Your task to perform on an android device: Add usb-b to the cart on costco, then select checkout. Image 0: 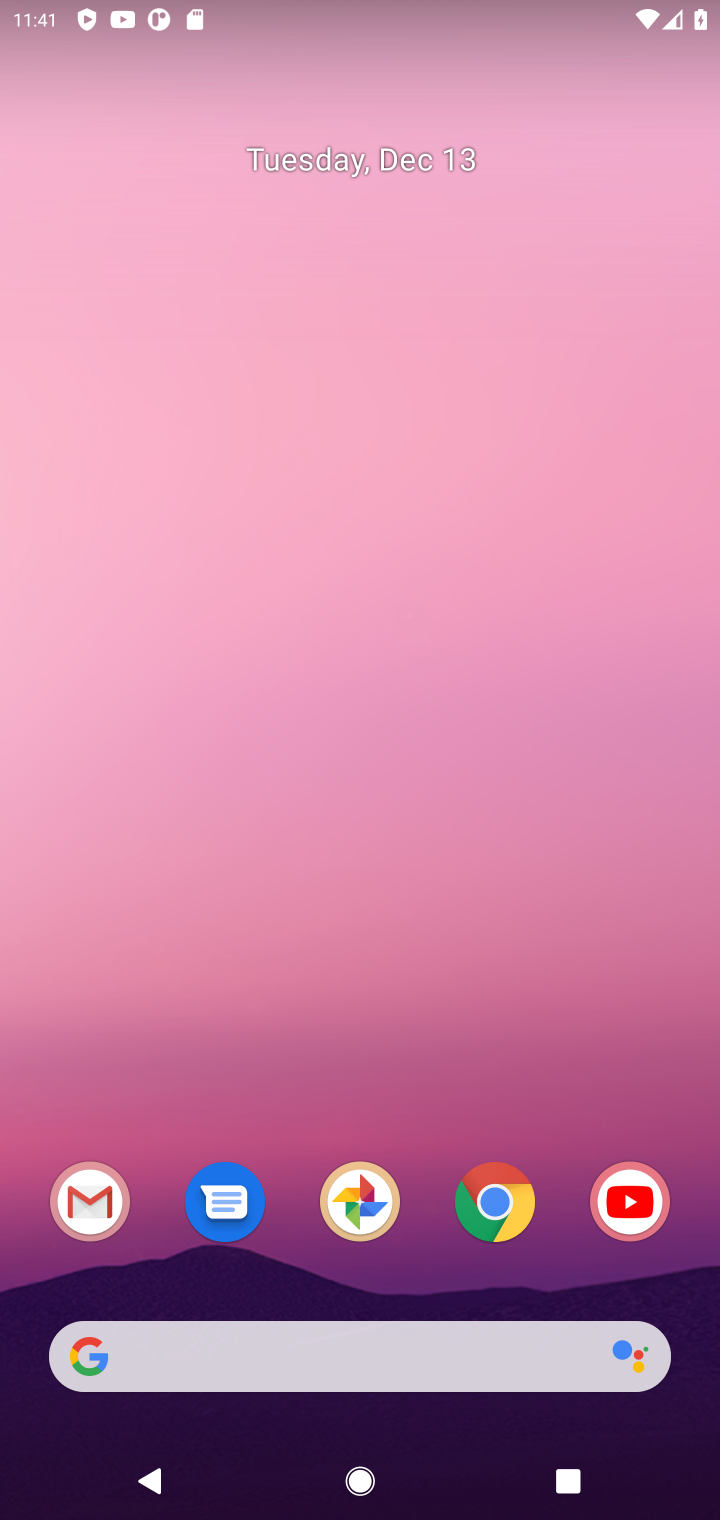
Step 0: click (487, 1200)
Your task to perform on an android device: Add usb-b to the cart on costco, then select checkout. Image 1: 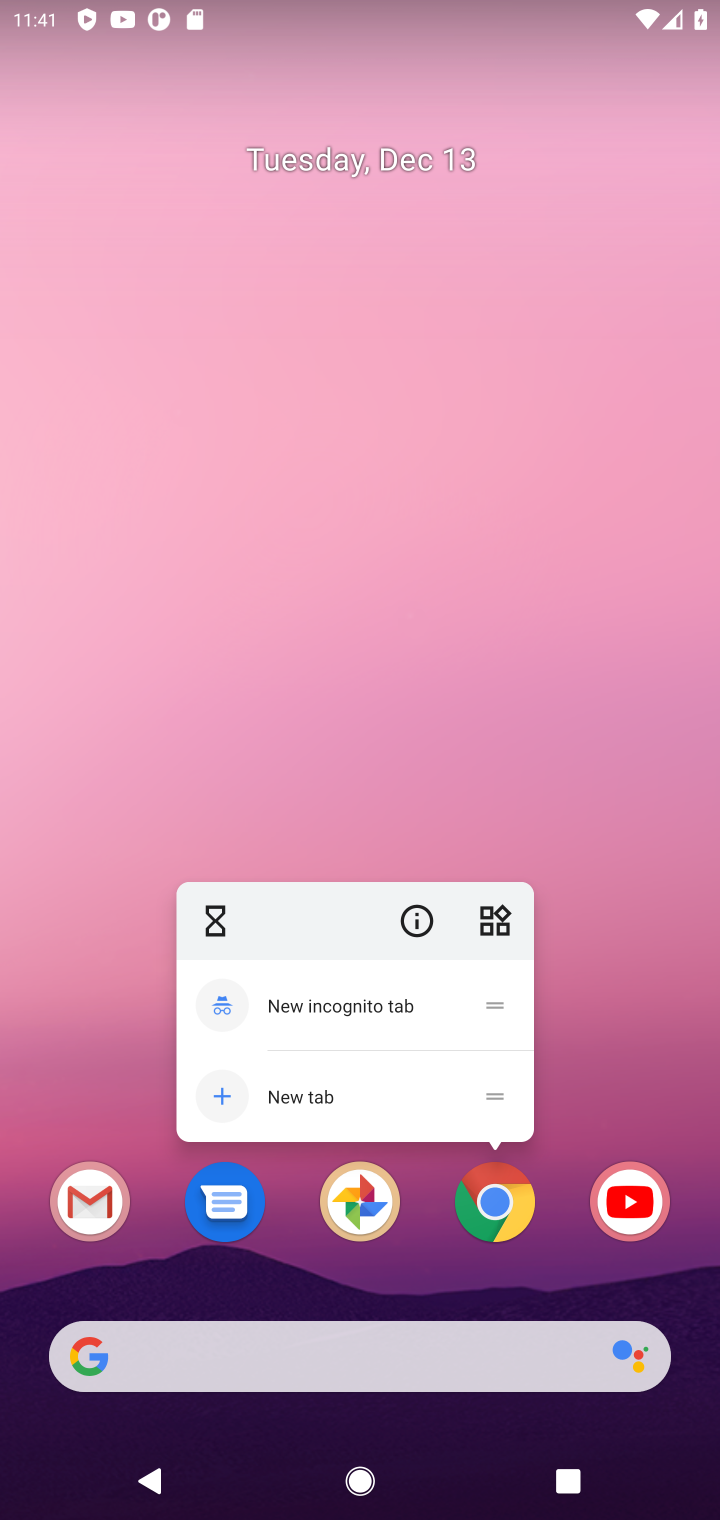
Step 1: click (487, 1200)
Your task to perform on an android device: Add usb-b to the cart on costco, then select checkout. Image 2: 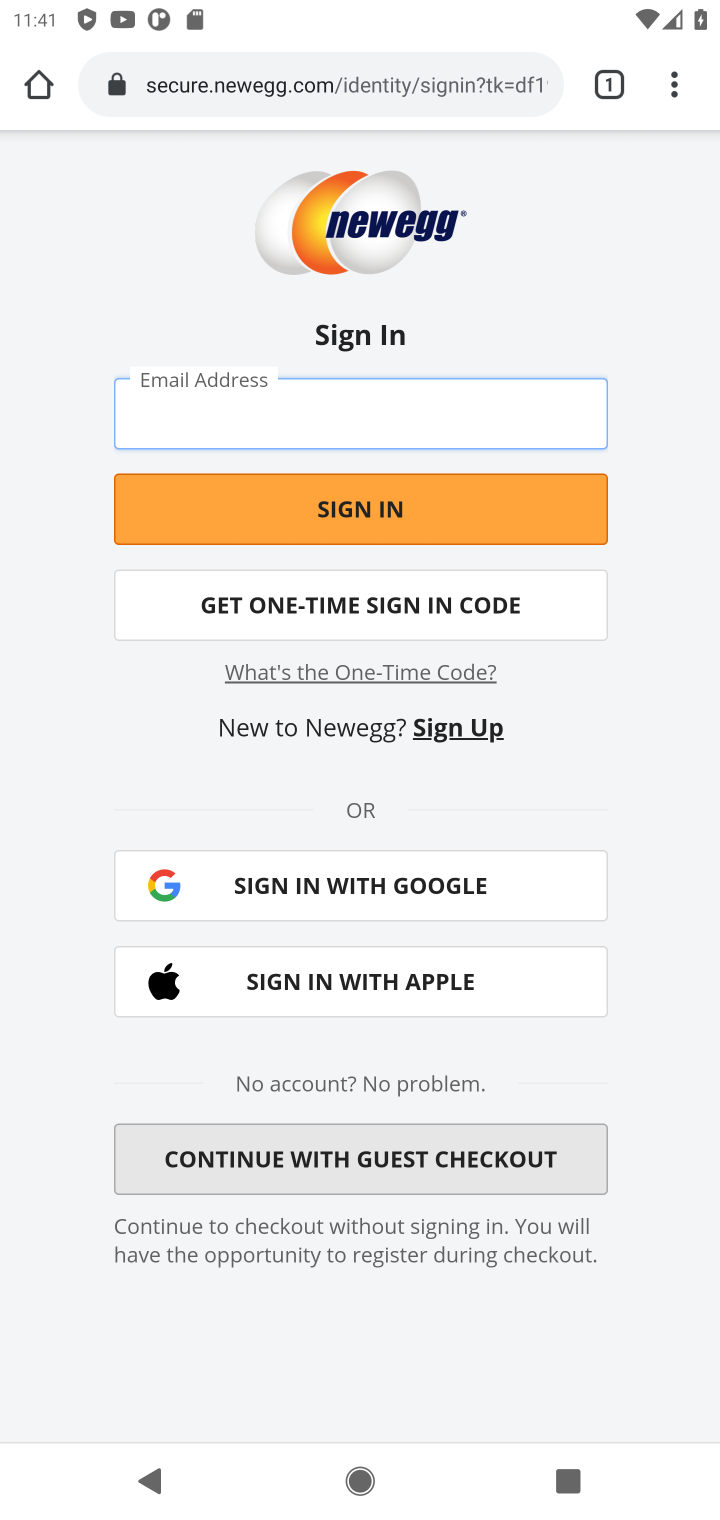
Step 2: click (319, 69)
Your task to perform on an android device: Add usb-b to the cart on costco, then select checkout. Image 3: 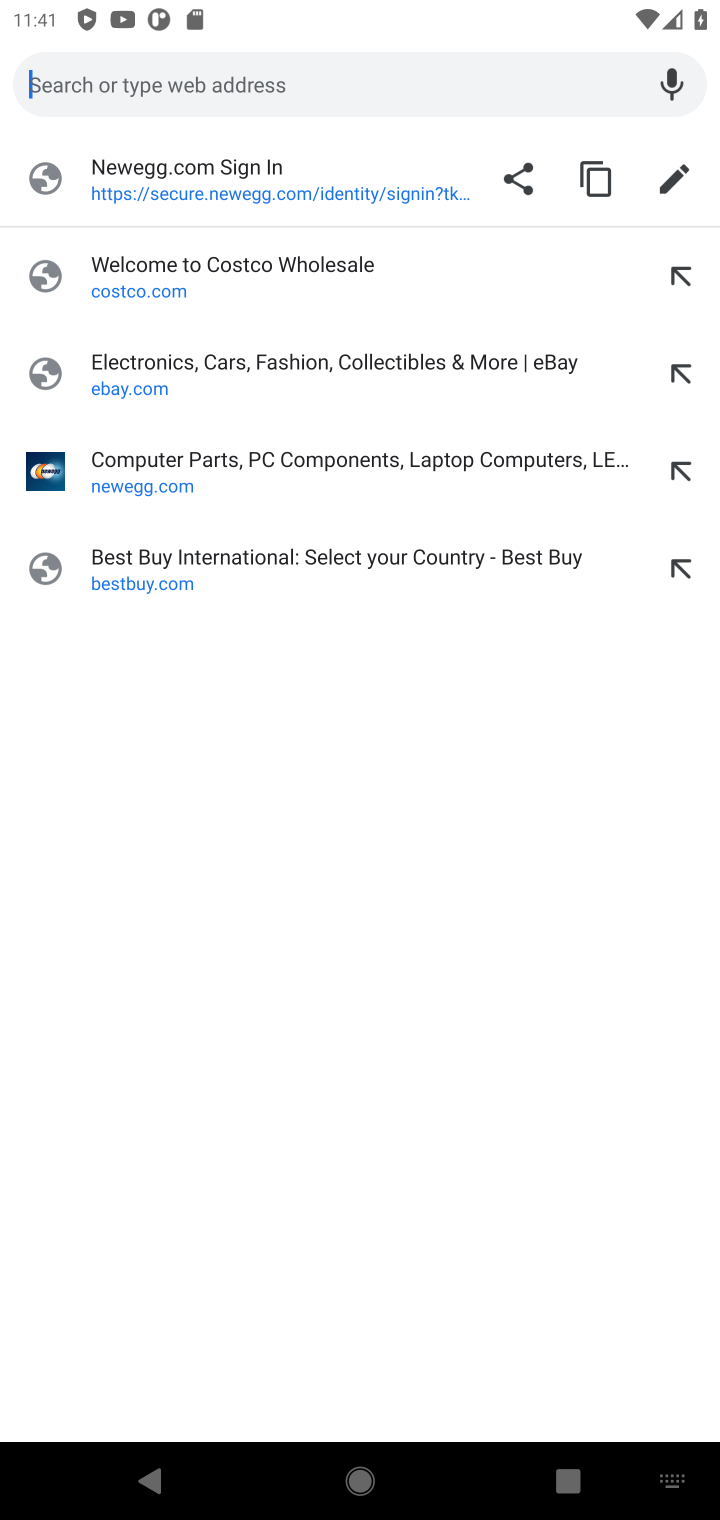
Step 3: click (203, 257)
Your task to perform on an android device: Add usb-b to the cart on costco, then select checkout. Image 4: 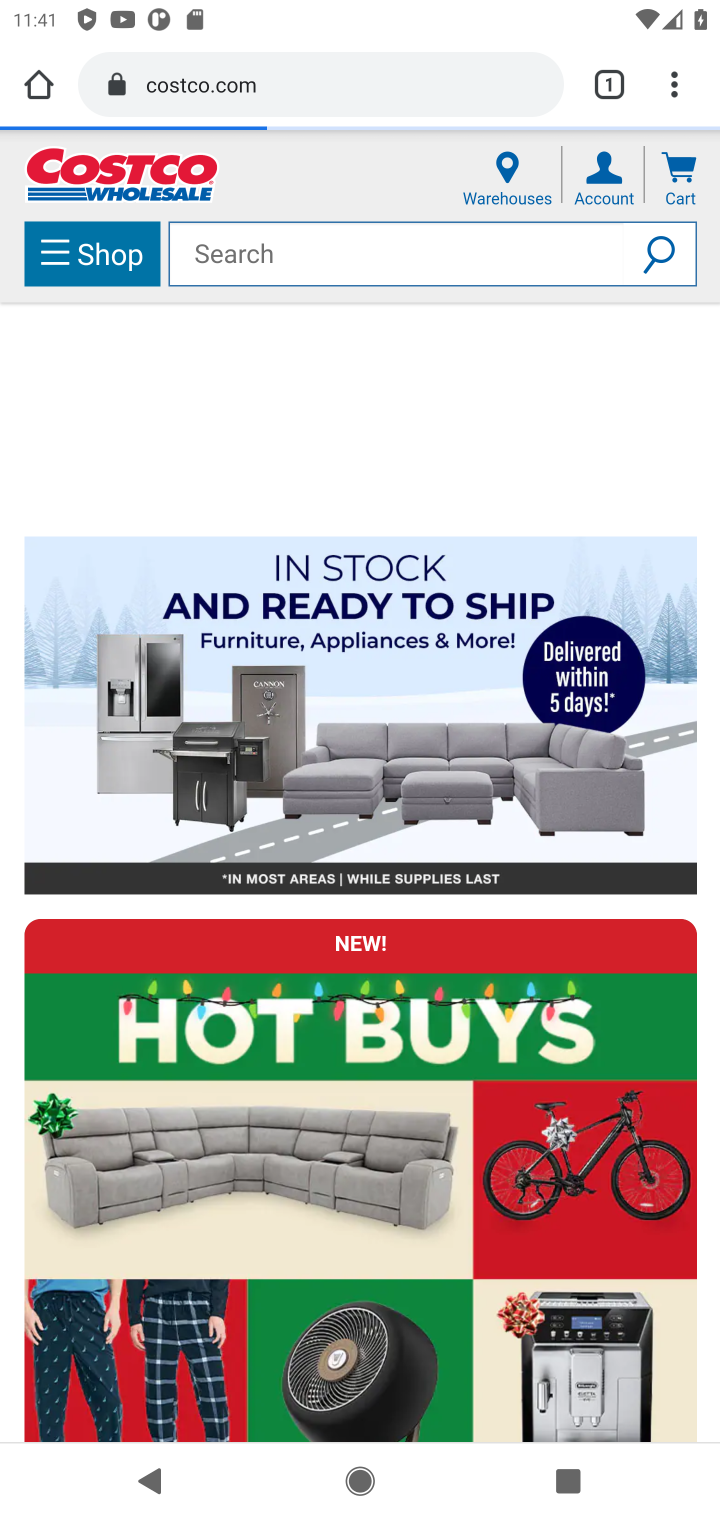
Step 4: click (467, 264)
Your task to perform on an android device: Add usb-b to the cart on costco, then select checkout. Image 5: 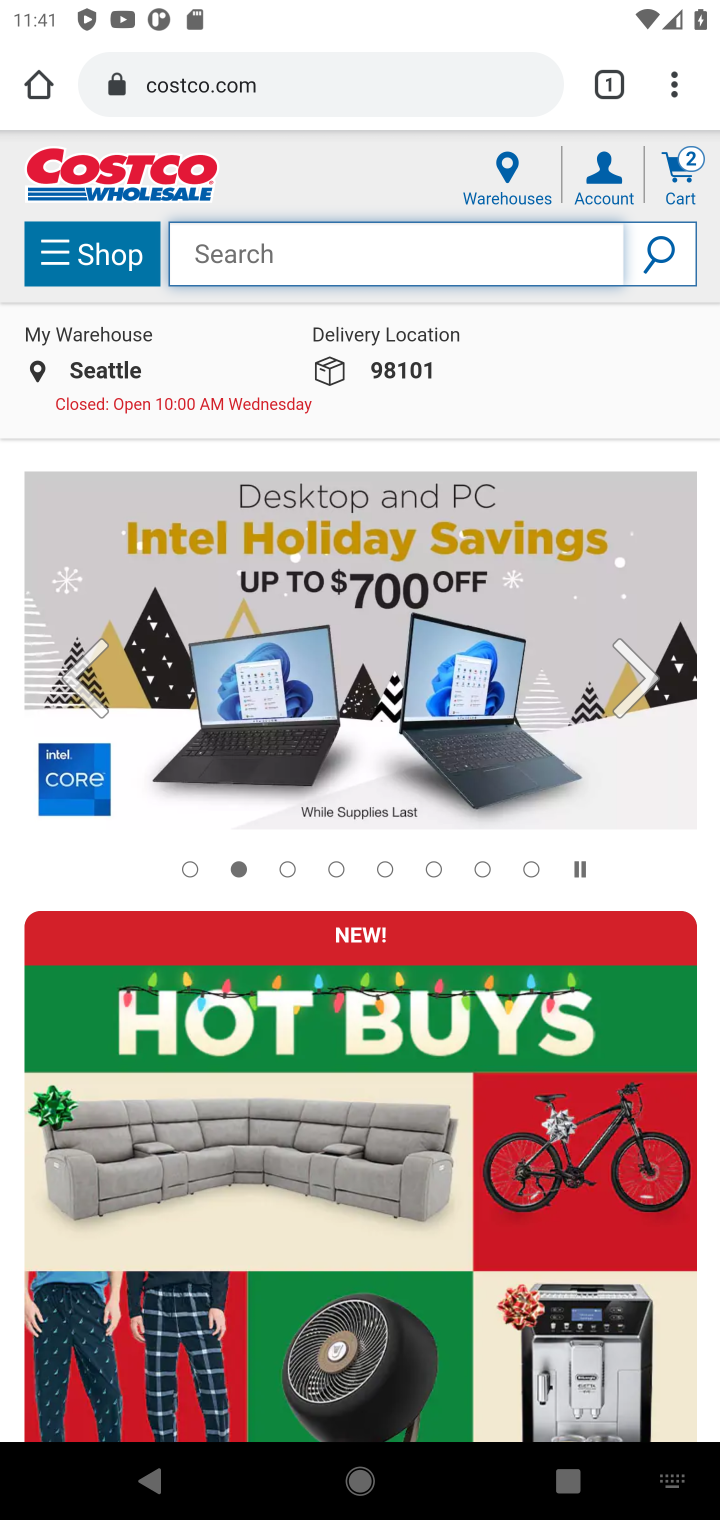
Step 5: type "usb-b"
Your task to perform on an android device: Add usb-b to the cart on costco, then select checkout. Image 6: 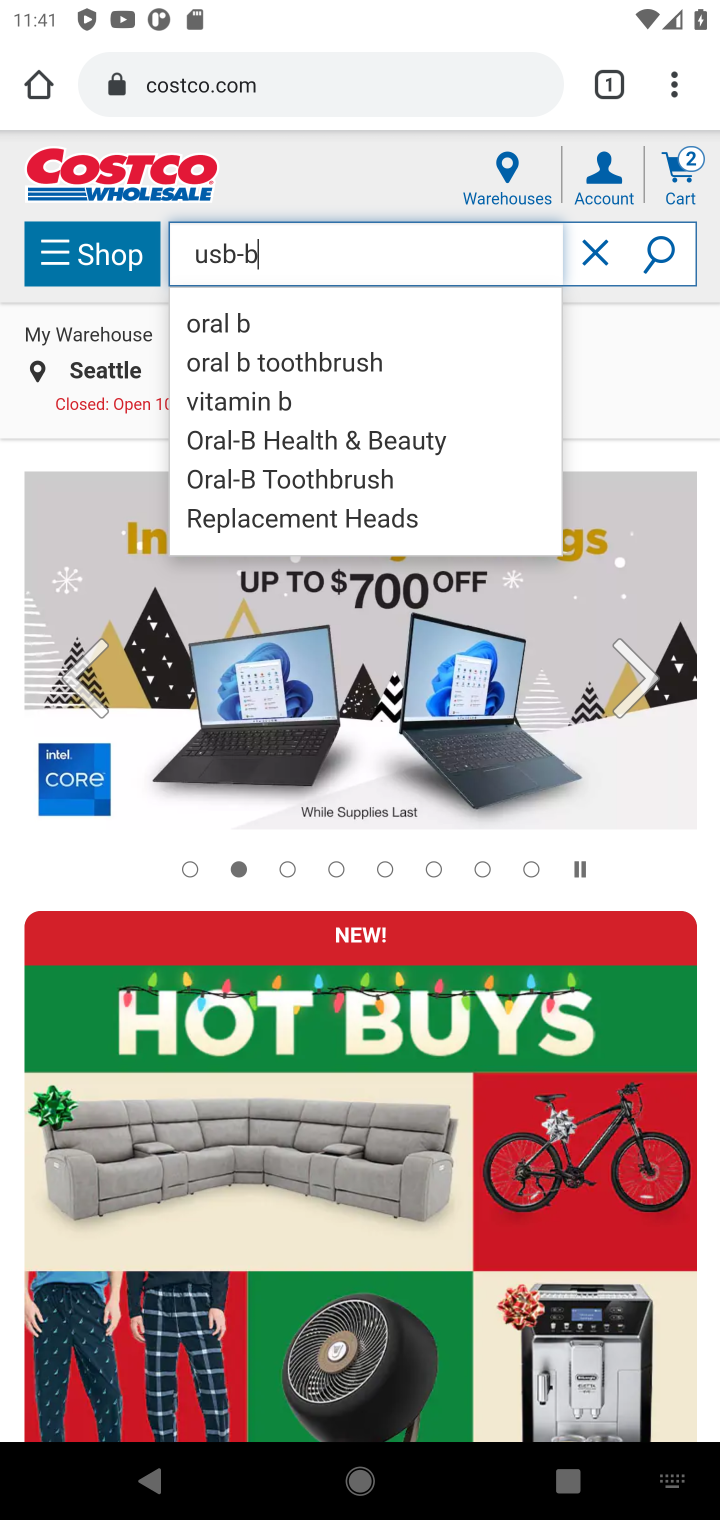
Step 6: click (660, 244)
Your task to perform on an android device: Add usb-b to the cart on costco, then select checkout. Image 7: 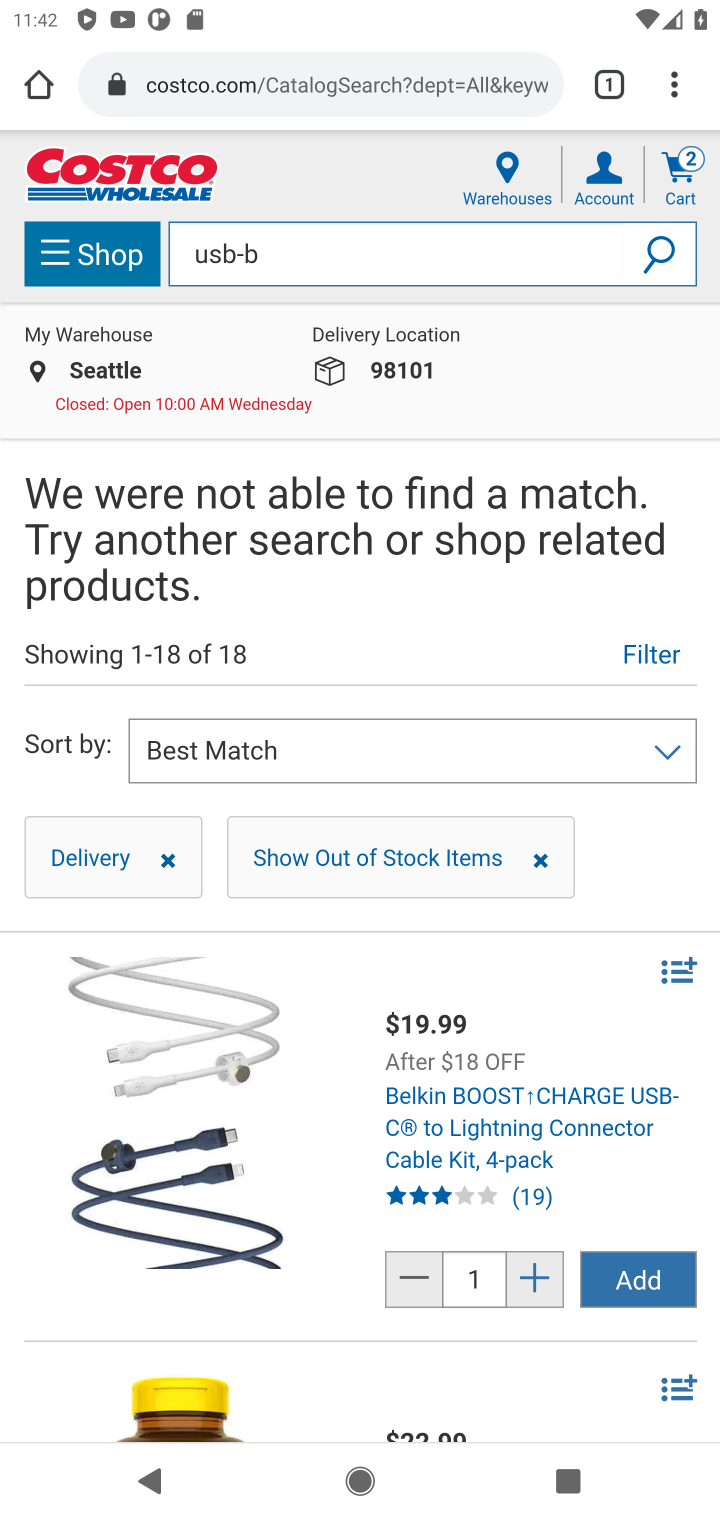
Step 7: click (357, 1046)
Your task to perform on an android device: Add usb-b to the cart on costco, then select checkout. Image 8: 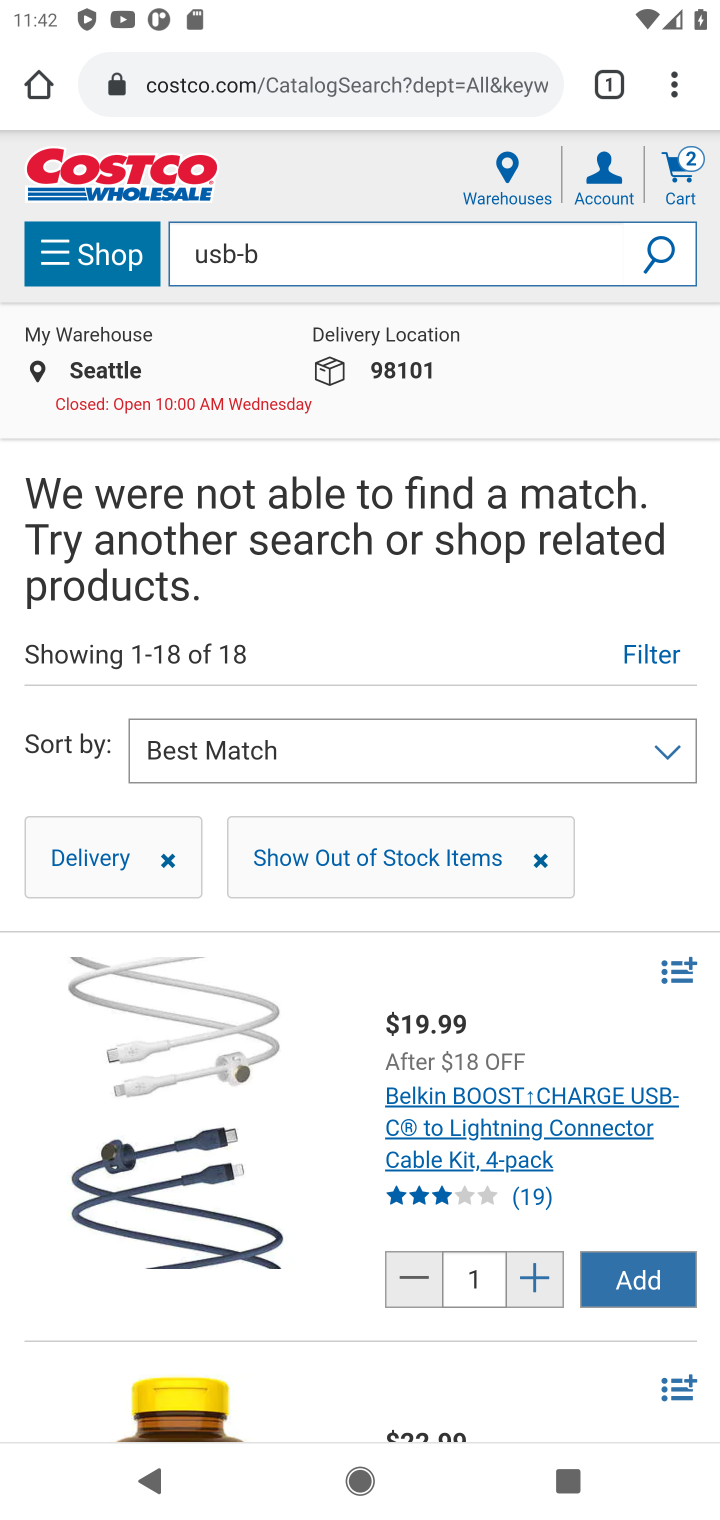
Step 8: click (556, 1124)
Your task to perform on an android device: Add usb-b to the cart on costco, then select checkout. Image 9: 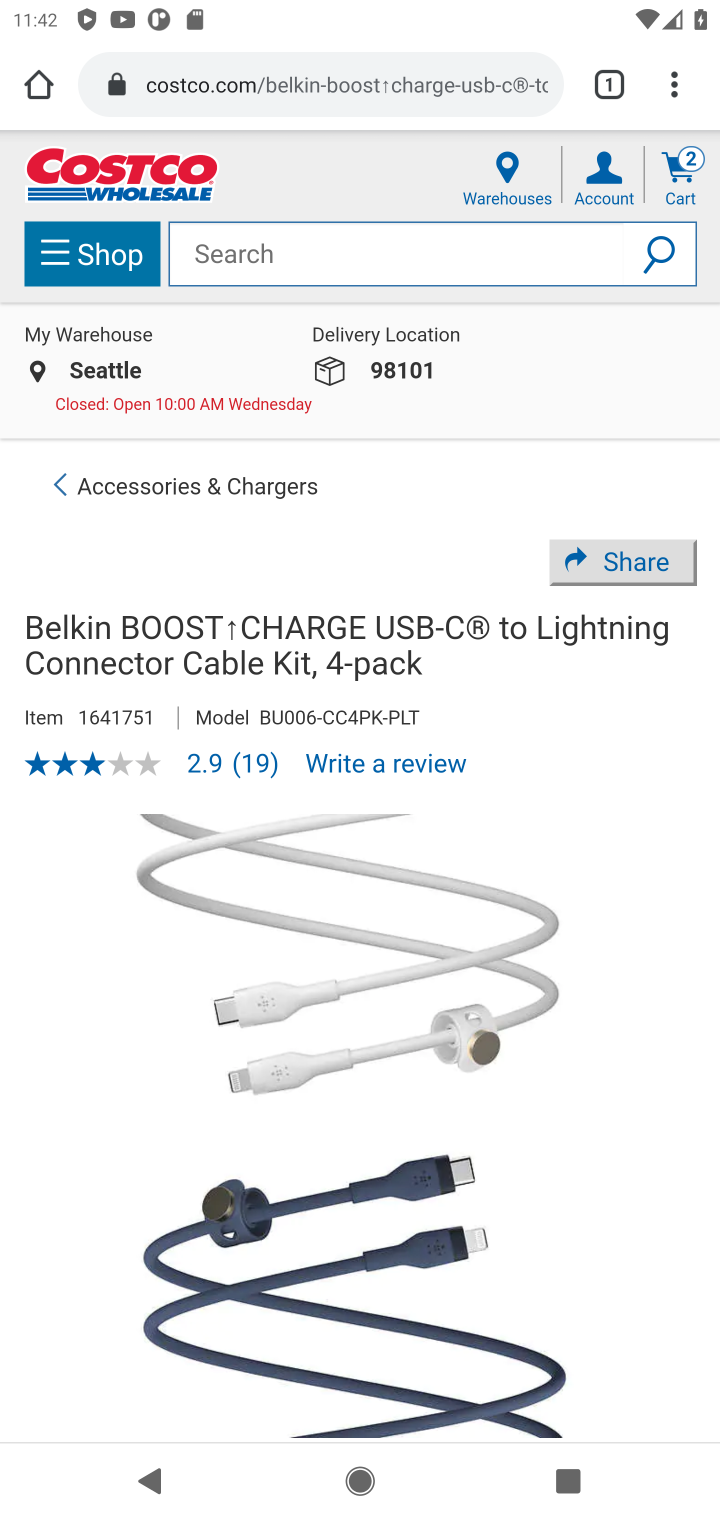
Step 9: drag from (506, 1279) to (461, 414)
Your task to perform on an android device: Add usb-b to the cart on costco, then select checkout. Image 10: 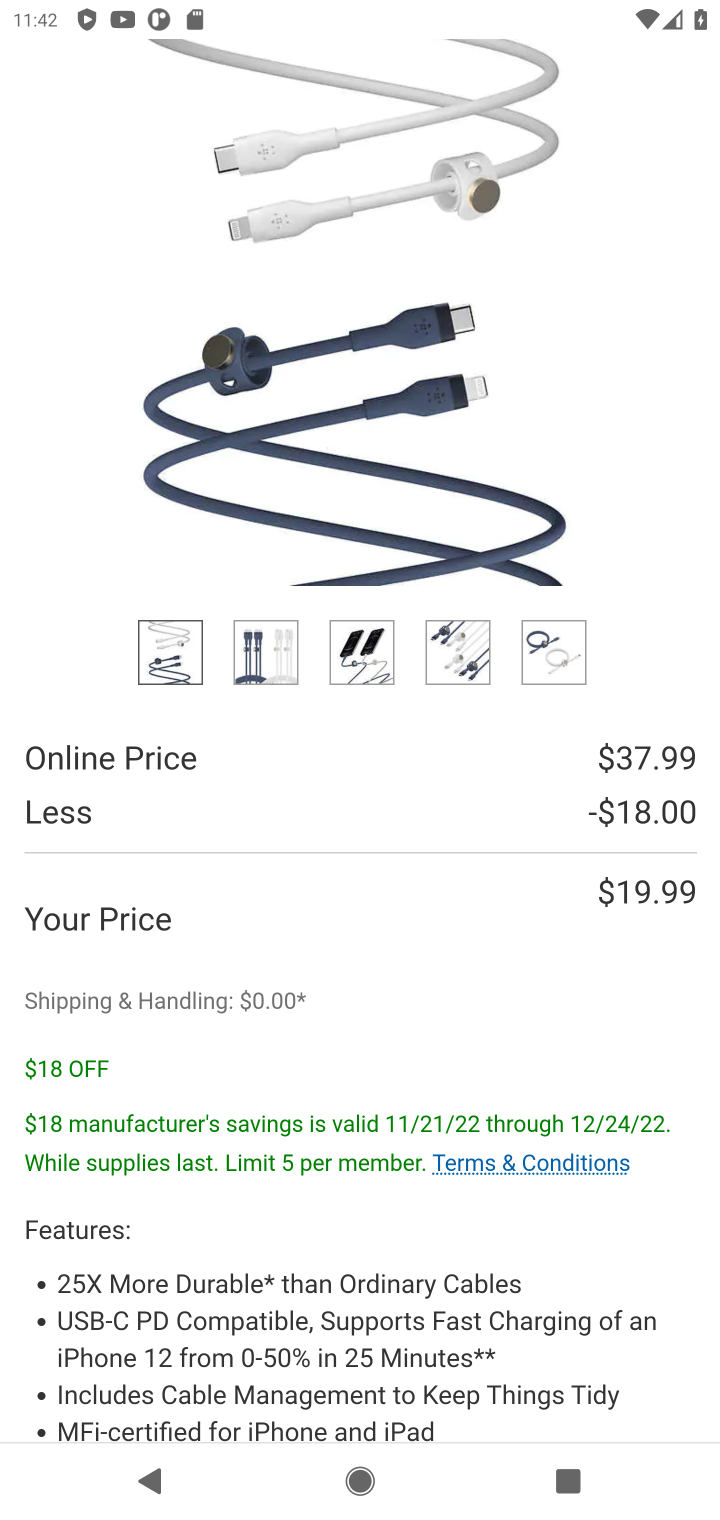
Step 10: drag from (513, 1326) to (442, 422)
Your task to perform on an android device: Add usb-b to the cart on costco, then select checkout. Image 11: 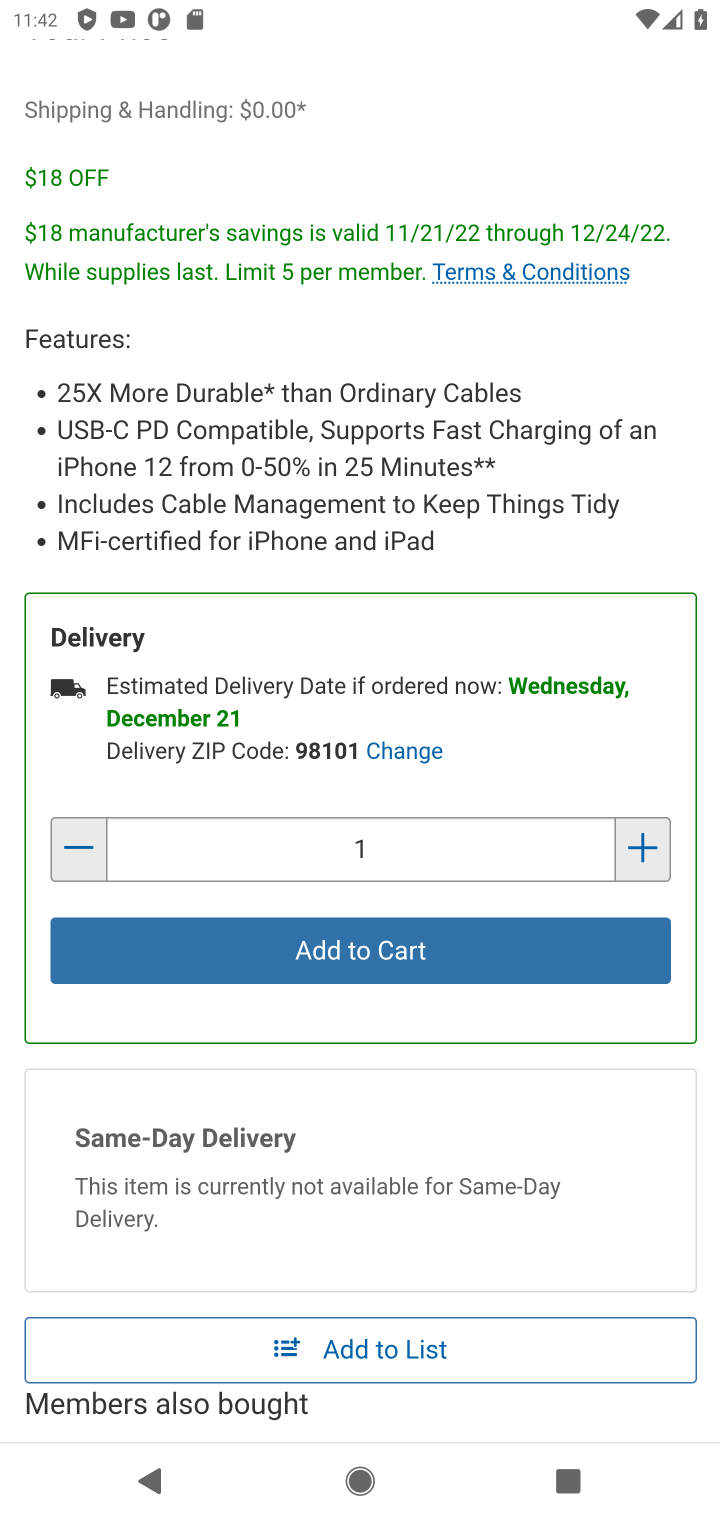
Step 11: click (418, 950)
Your task to perform on an android device: Add usb-b to the cart on costco, then select checkout. Image 12: 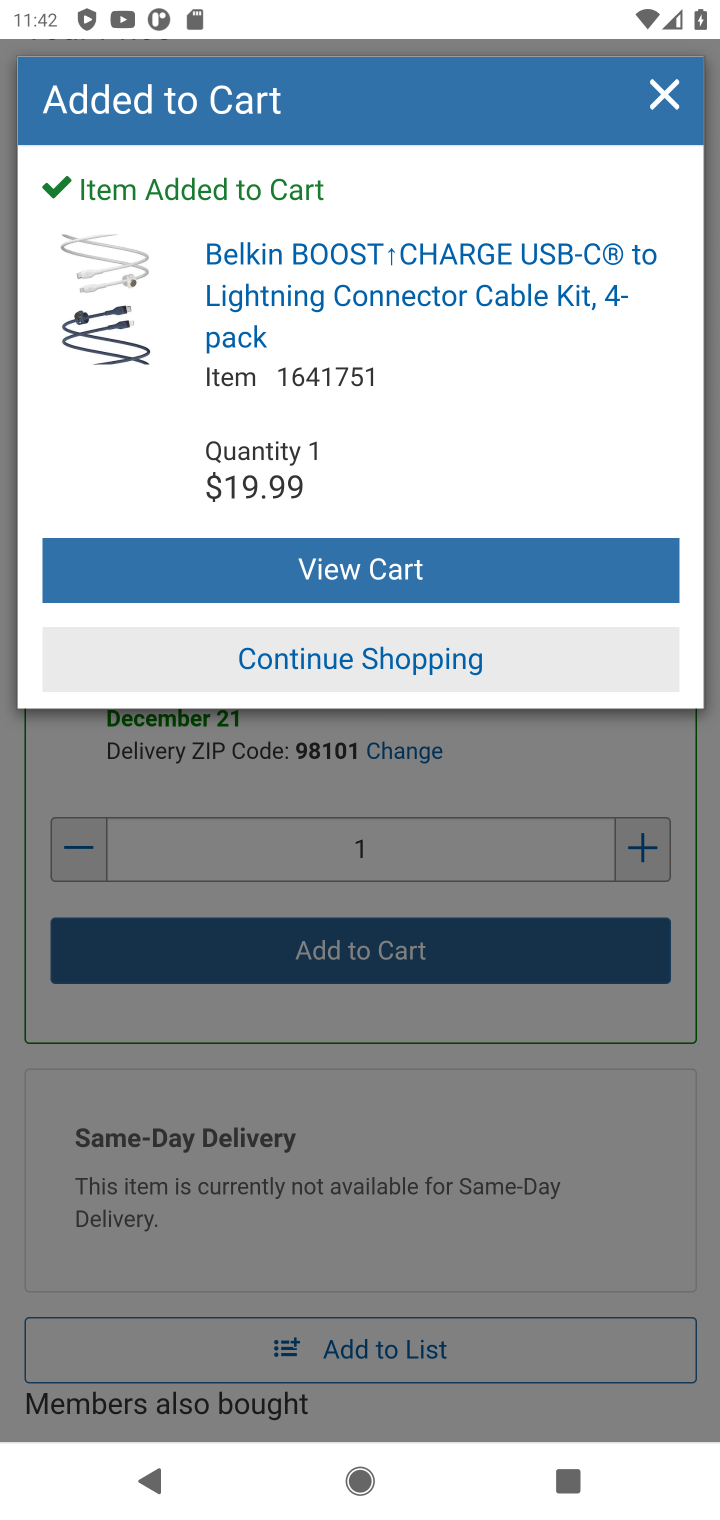
Step 12: click (396, 572)
Your task to perform on an android device: Add usb-b to the cart on costco, then select checkout. Image 13: 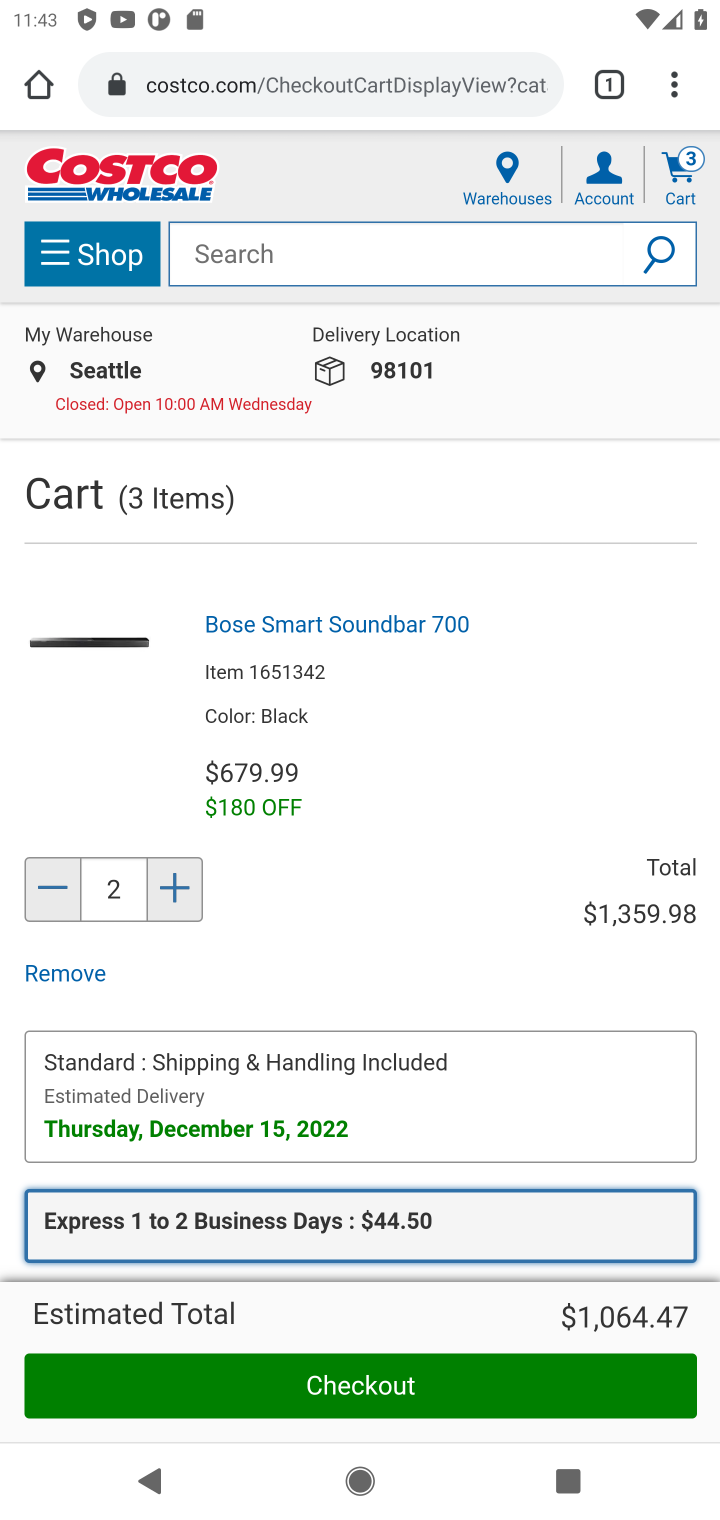
Step 13: click (374, 1403)
Your task to perform on an android device: Add usb-b to the cart on costco, then select checkout. Image 14: 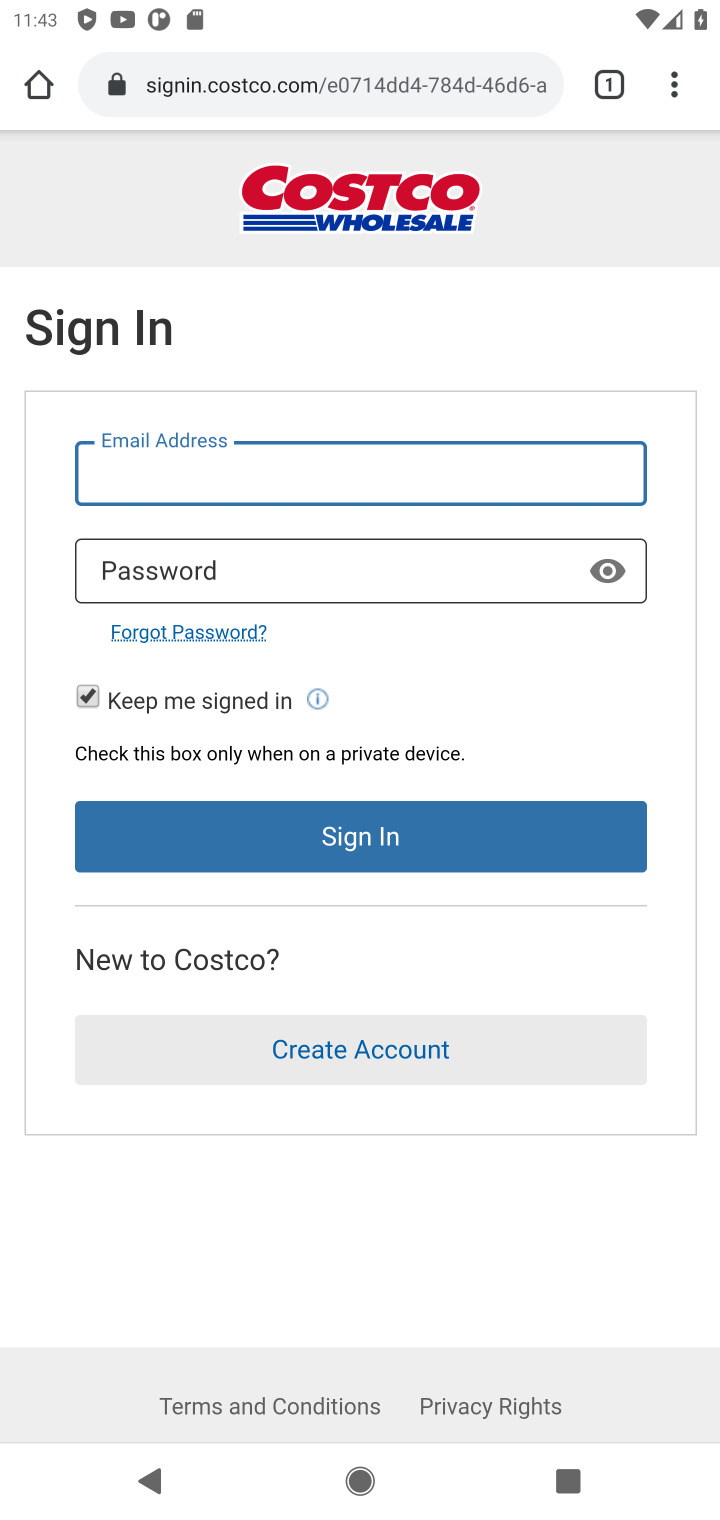
Step 14: task complete